Your task to perform on an android device: open chrome and create a bookmark for the current page Image 0: 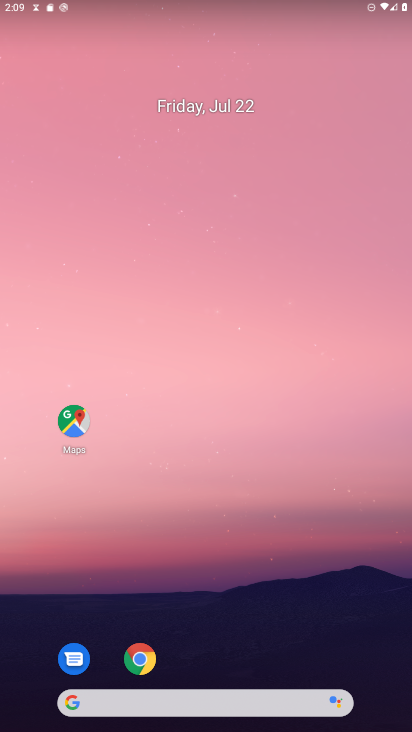
Step 0: drag from (272, 452) to (108, 1)
Your task to perform on an android device: open chrome and create a bookmark for the current page Image 1: 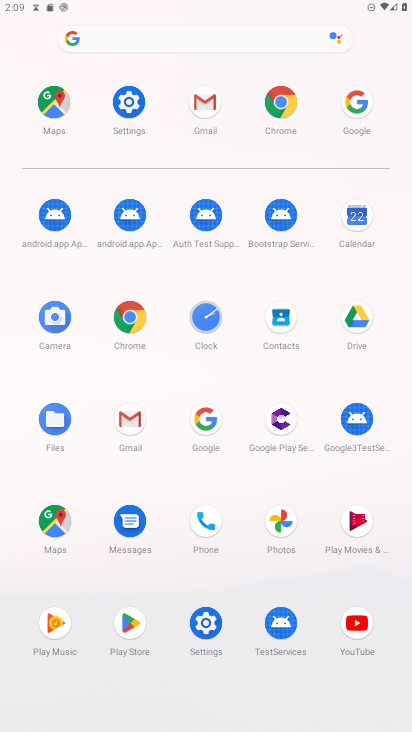
Step 1: click (289, 95)
Your task to perform on an android device: open chrome and create a bookmark for the current page Image 2: 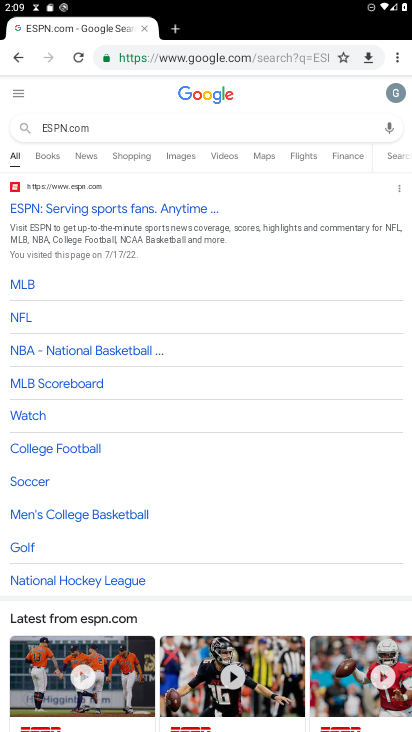
Step 2: click (337, 61)
Your task to perform on an android device: open chrome and create a bookmark for the current page Image 3: 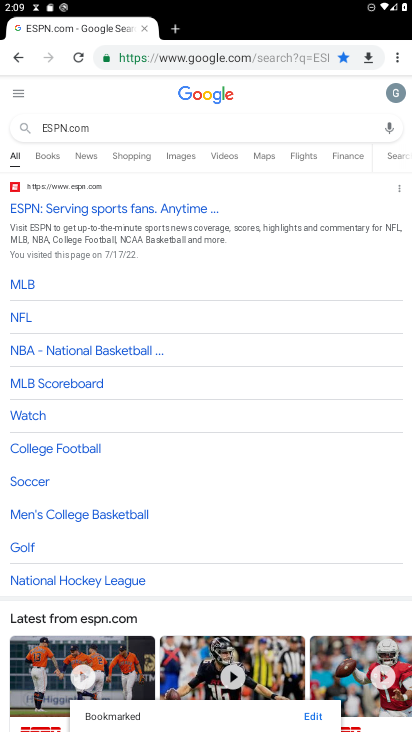
Step 3: task complete